Your task to perform on an android device: turn off sleep mode Image 0: 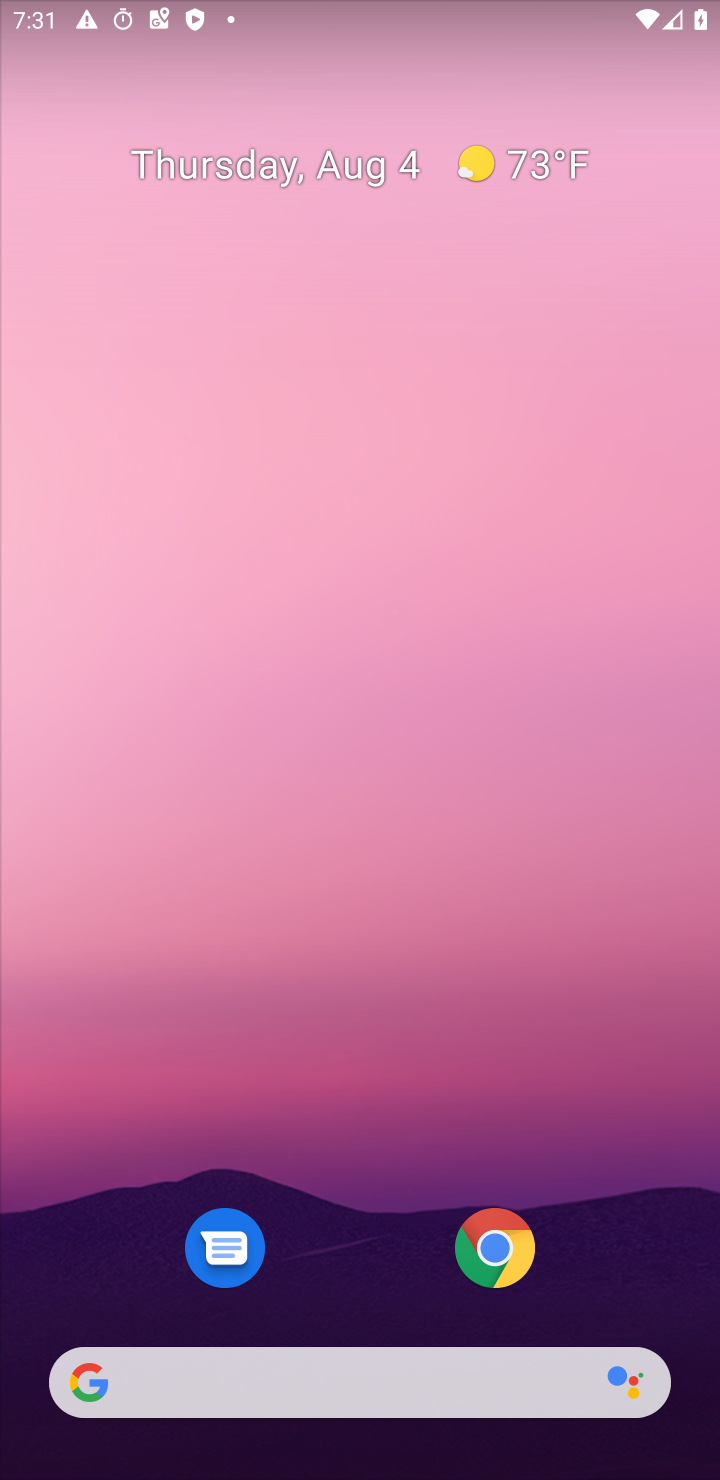
Step 0: press home button
Your task to perform on an android device: turn off sleep mode Image 1: 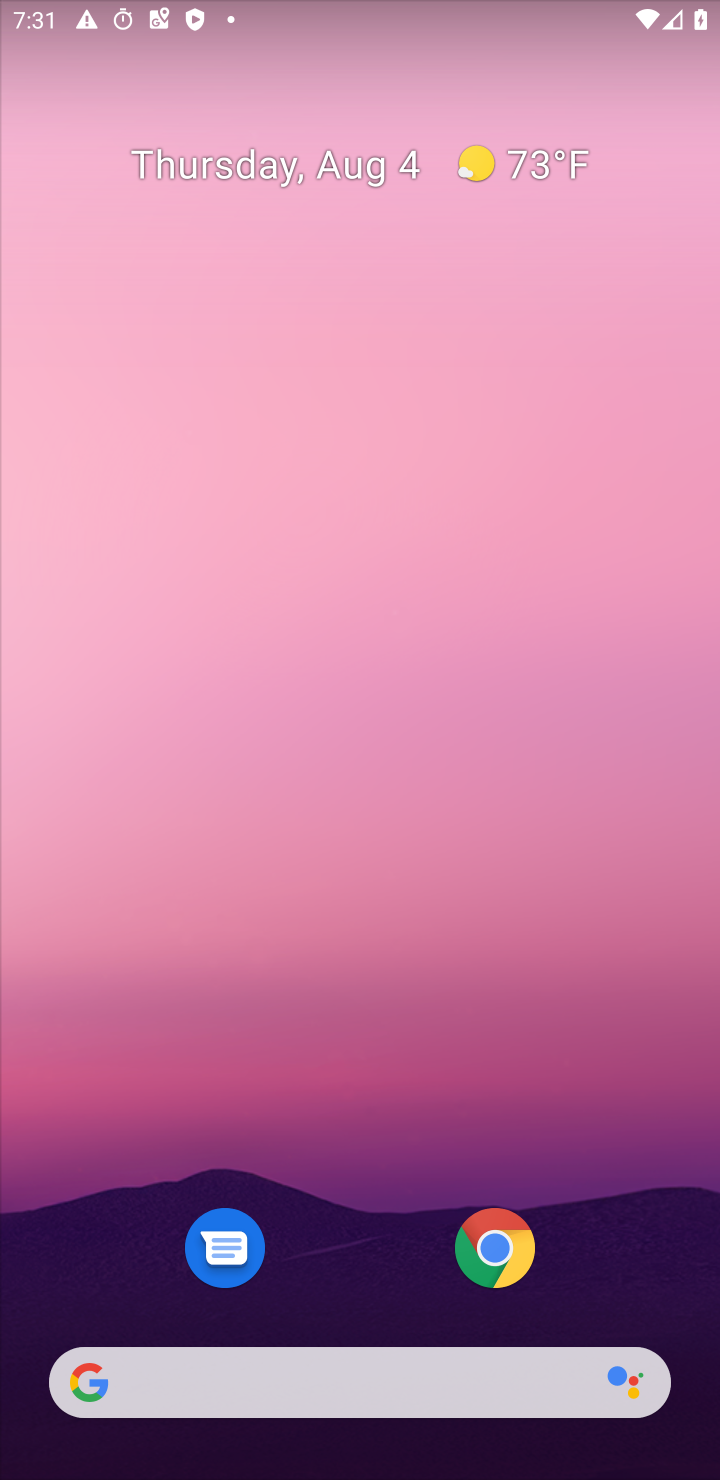
Step 1: drag from (427, 1415) to (389, 262)
Your task to perform on an android device: turn off sleep mode Image 2: 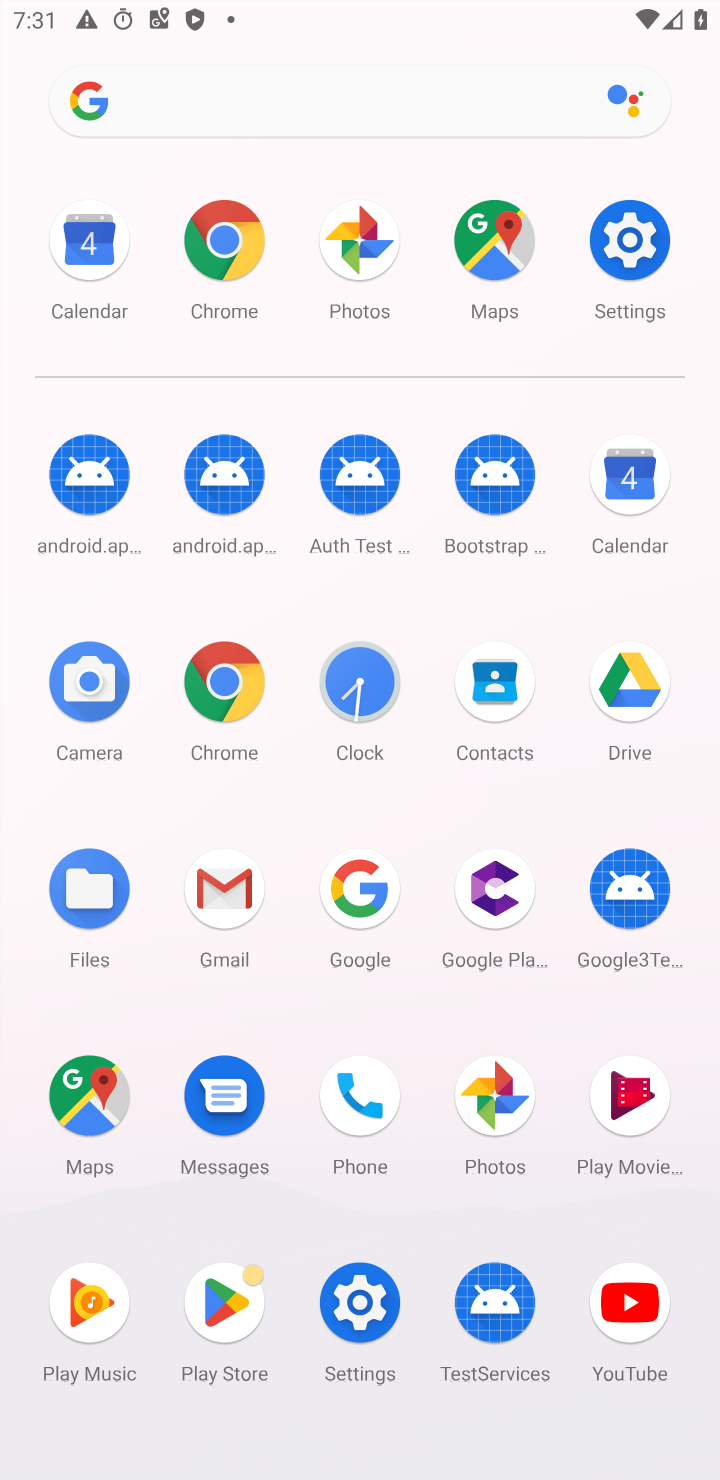
Step 2: click (367, 1276)
Your task to perform on an android device: turn off sleep mode Image 3: 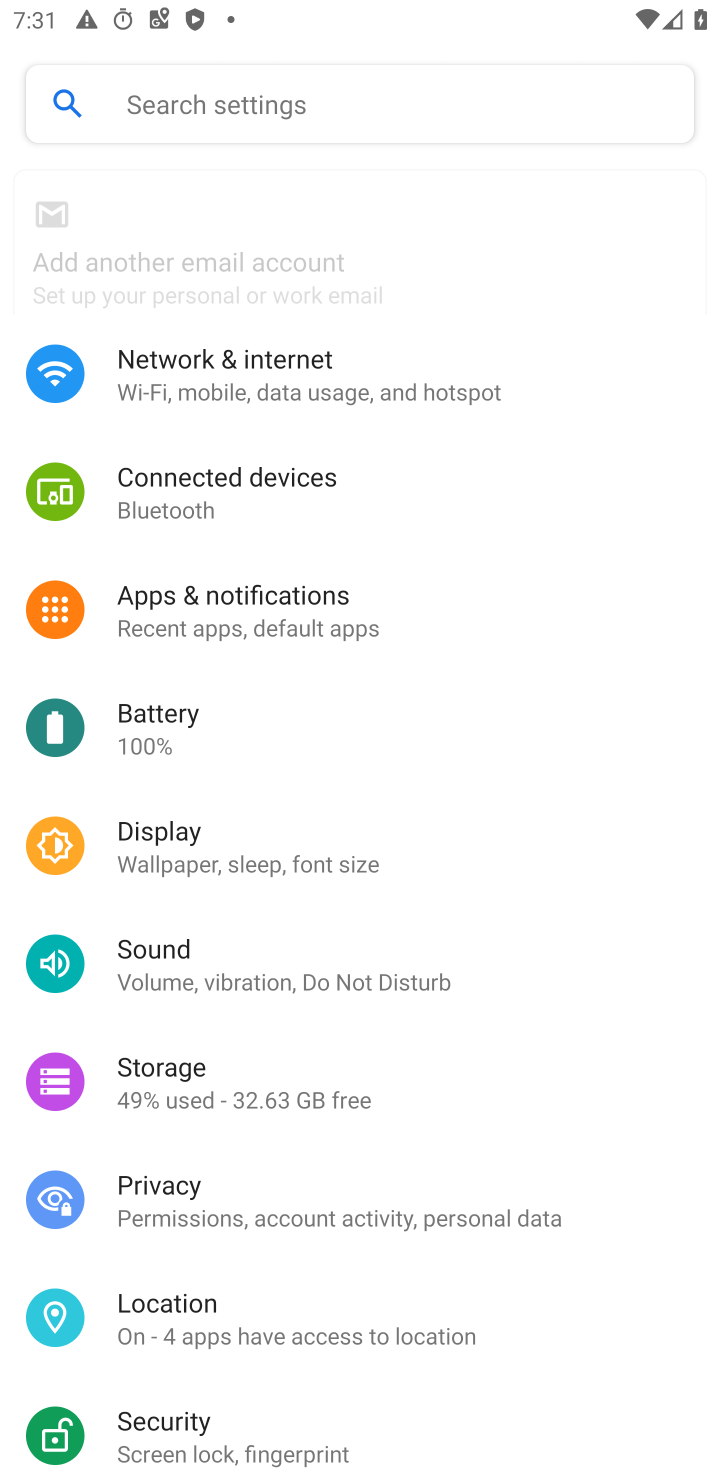
Step 3: click (238, 107)
Your task to perform on an android device: turn off sleep mode Image 4: 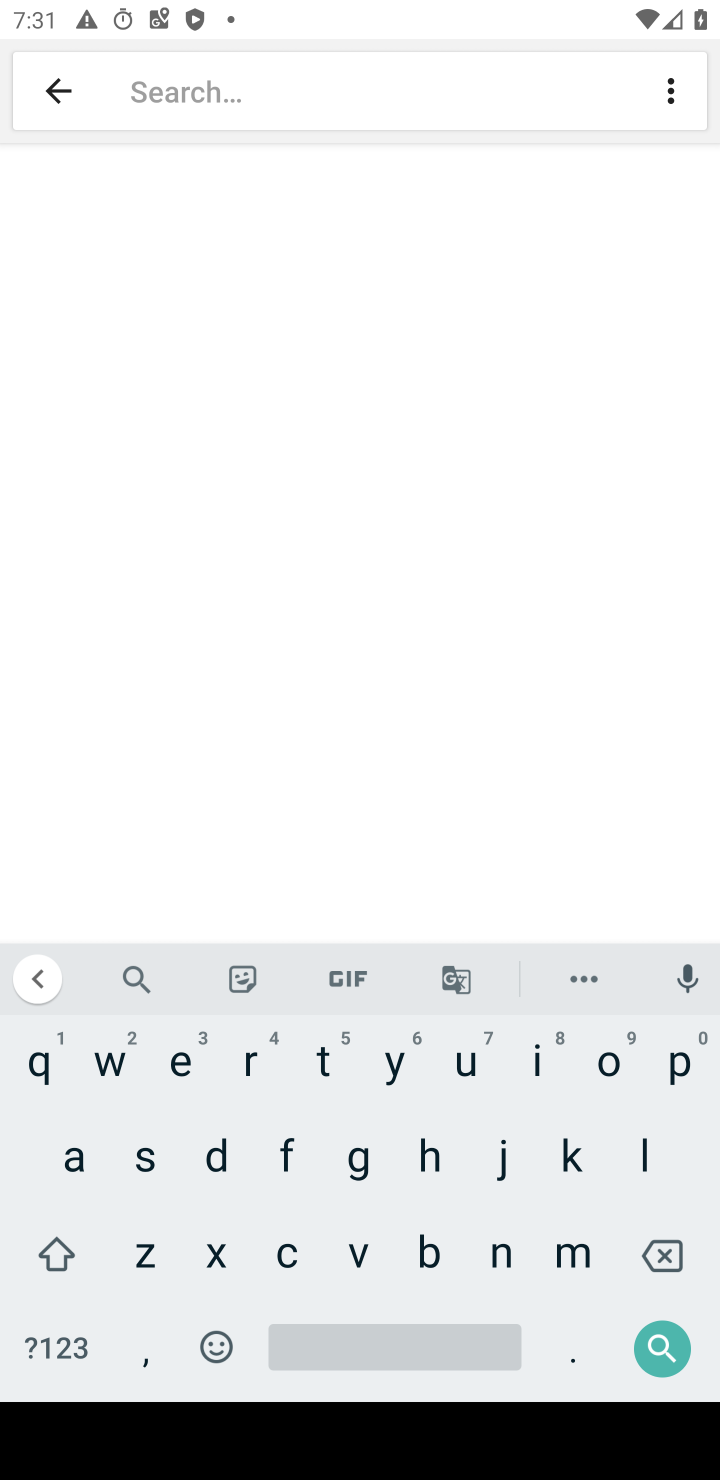
Step 4: click (136, 1159)
Your task to perform on an android device: turn off sleep mode Image 5: 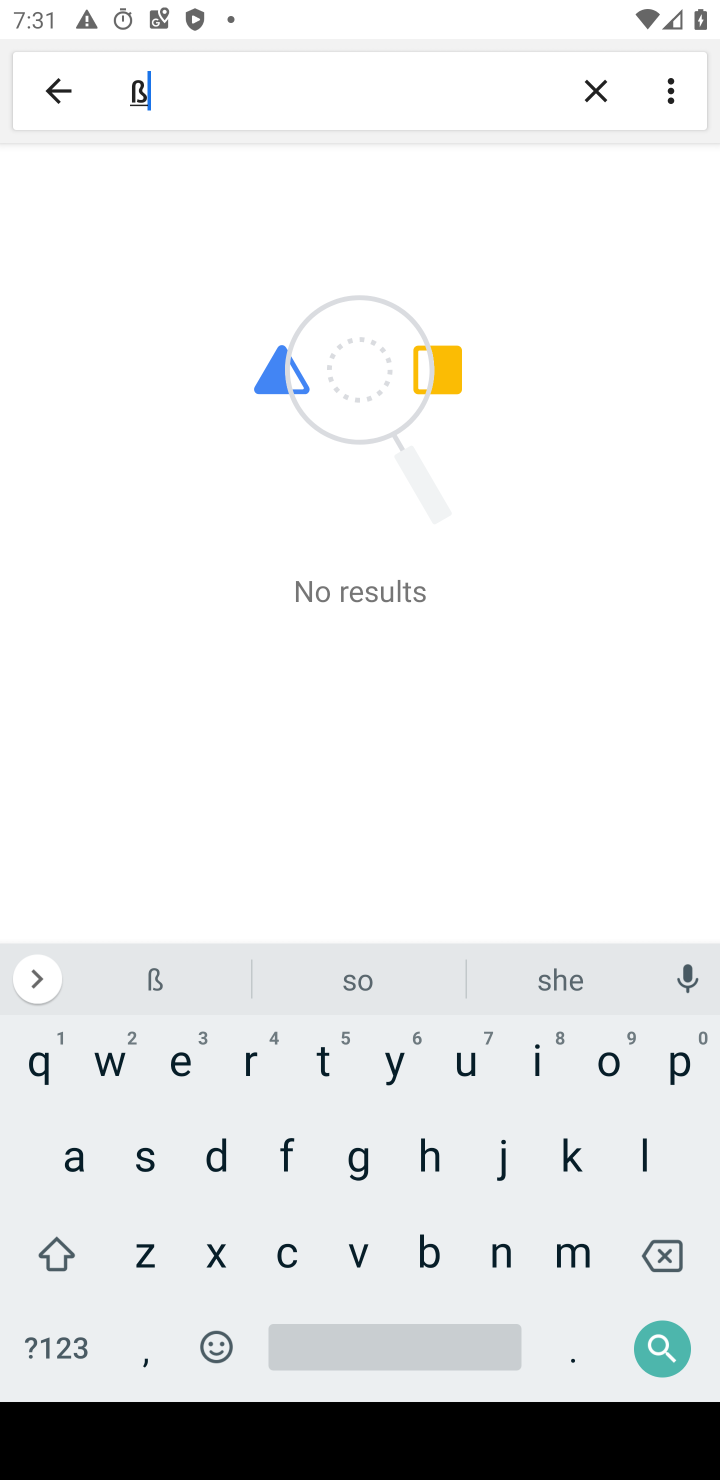
Step 5: click (610, 101)
Your task to perform on an android device: turn off sleep mode Image 6: 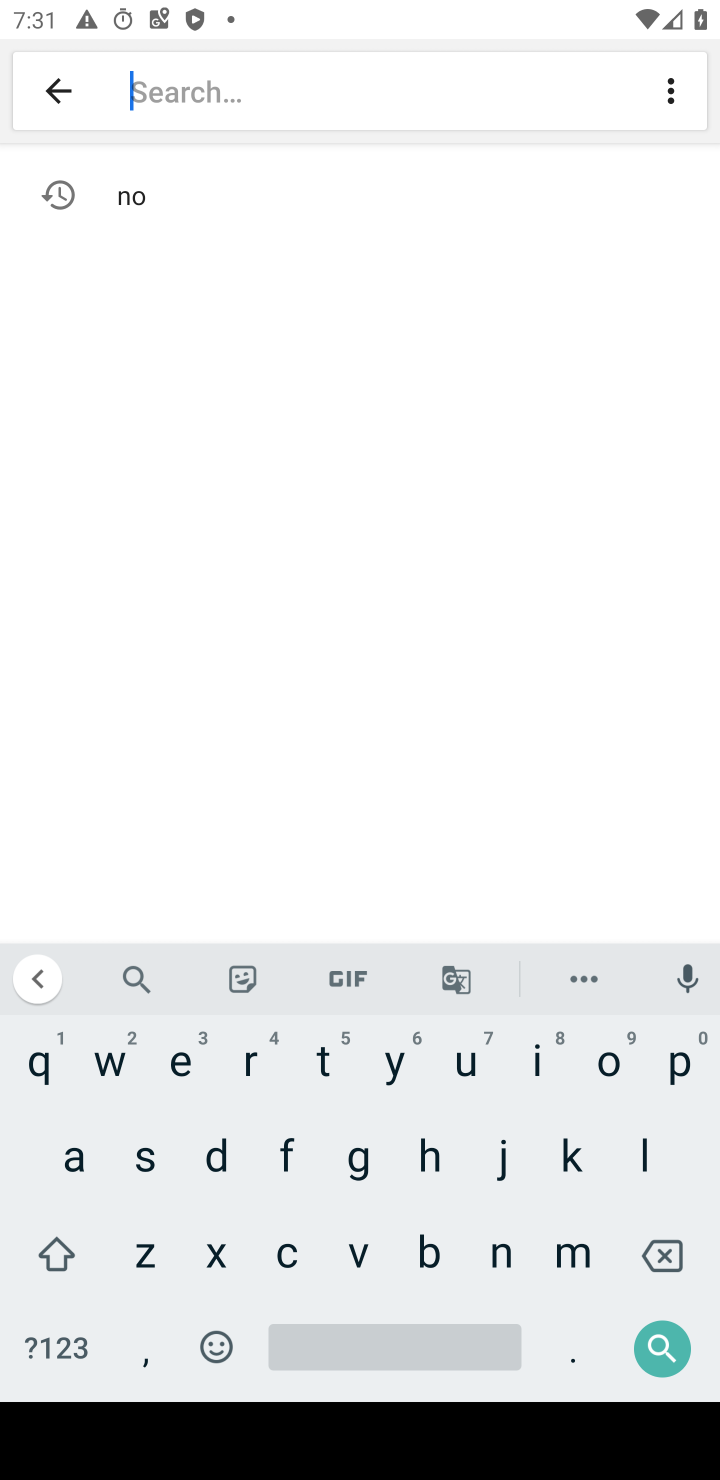
Step 6: click (148, 1145)
Your task to perform on an android device: turn off sleep mode Image 7: 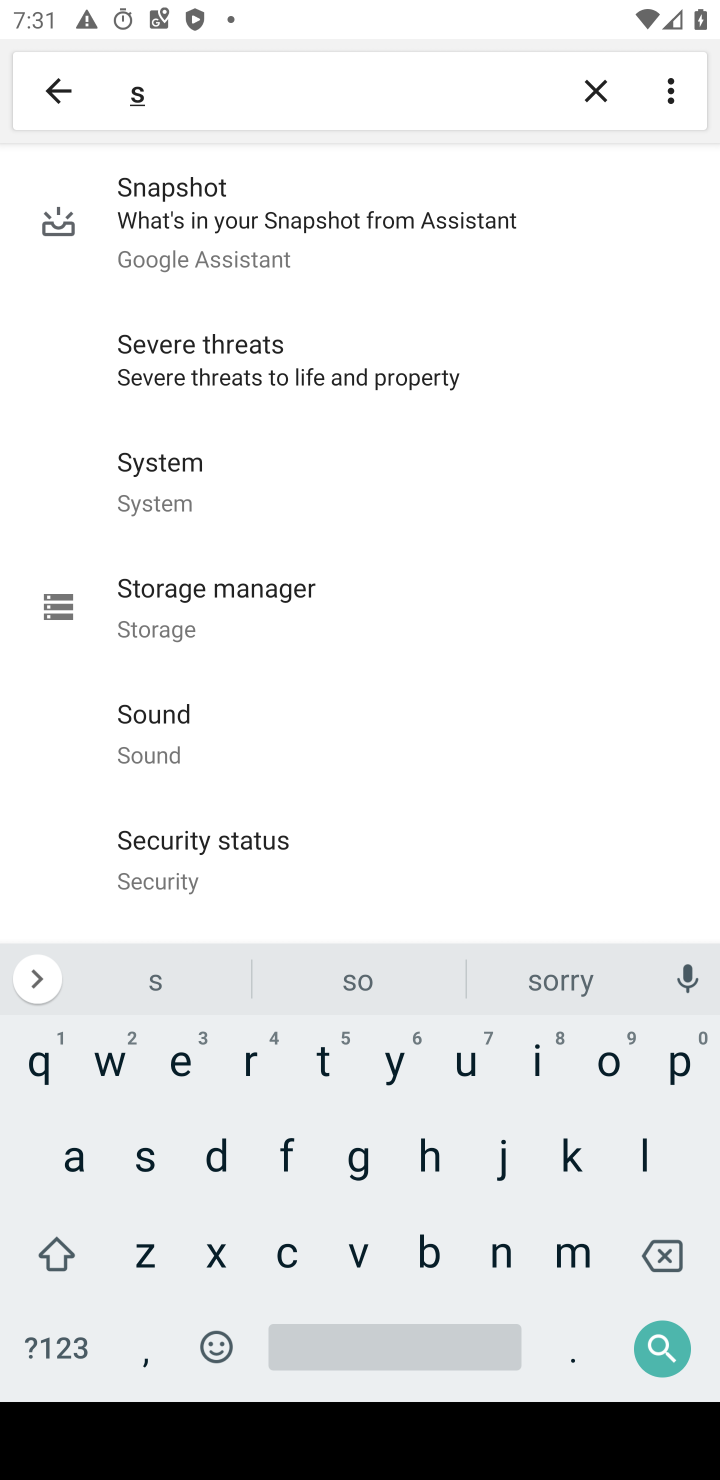
Step 7: click (648, 1143)
Your task to perform on an android device: turn off sleep mode Image 8: 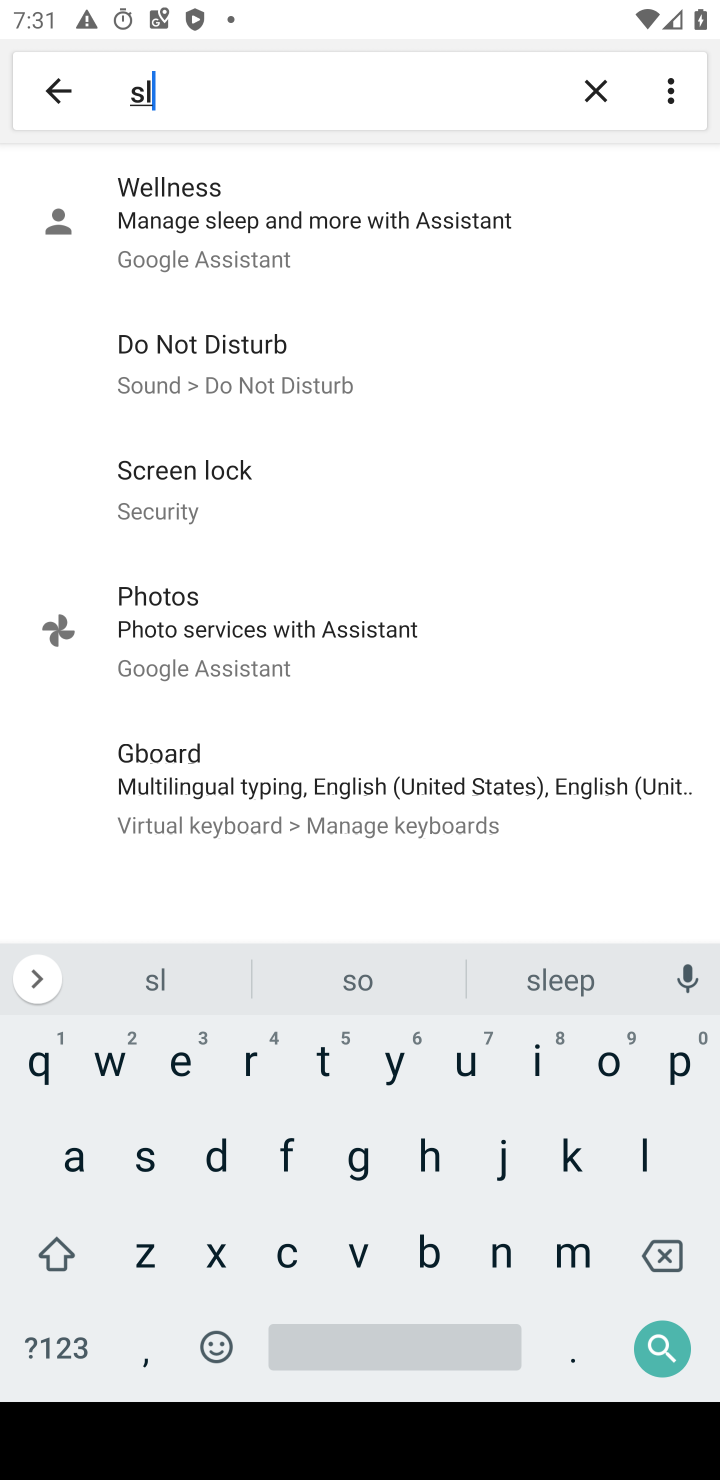
Step 8: click (227, 332)
Your task to perform on an android device: turn off sleep mode Image 9: 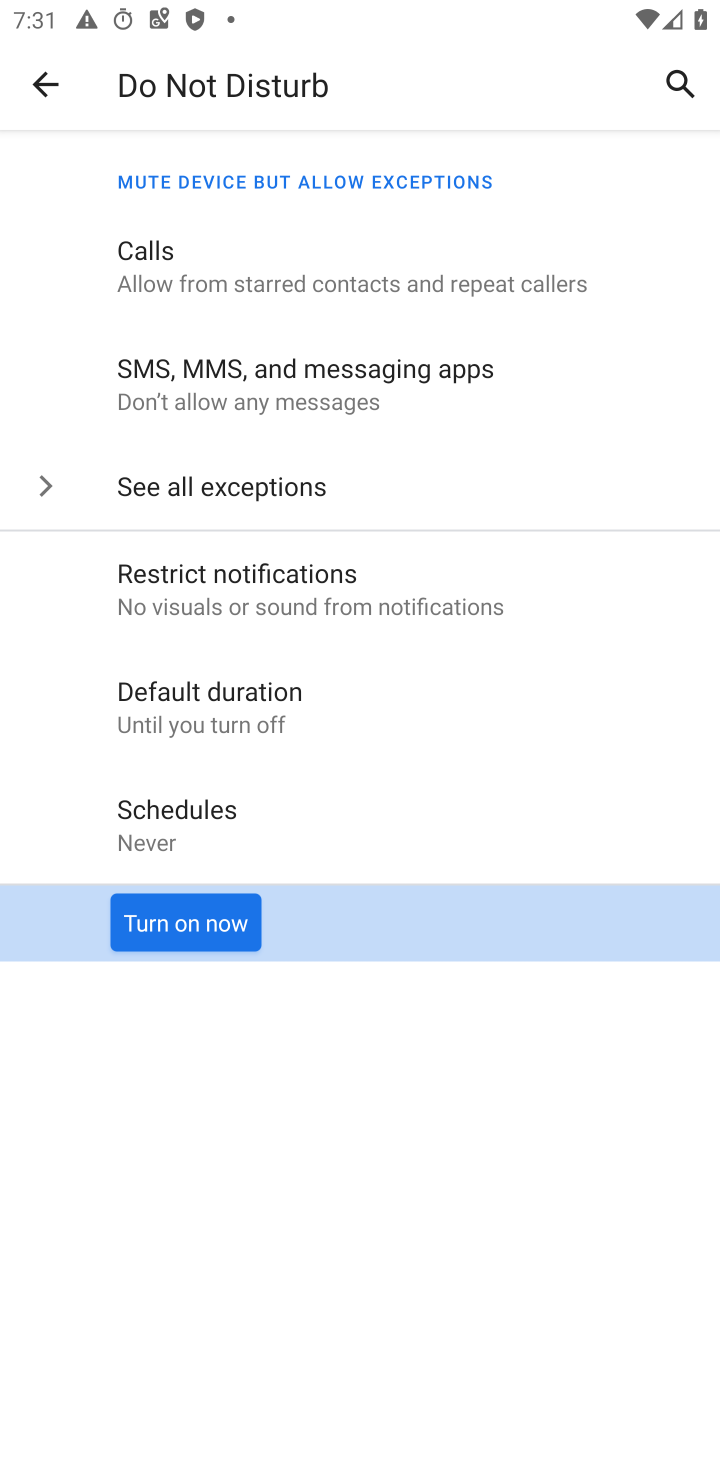
Step 9: click (171, 943)
Your task to perform on an android device: turn off sleep mode Image 10: 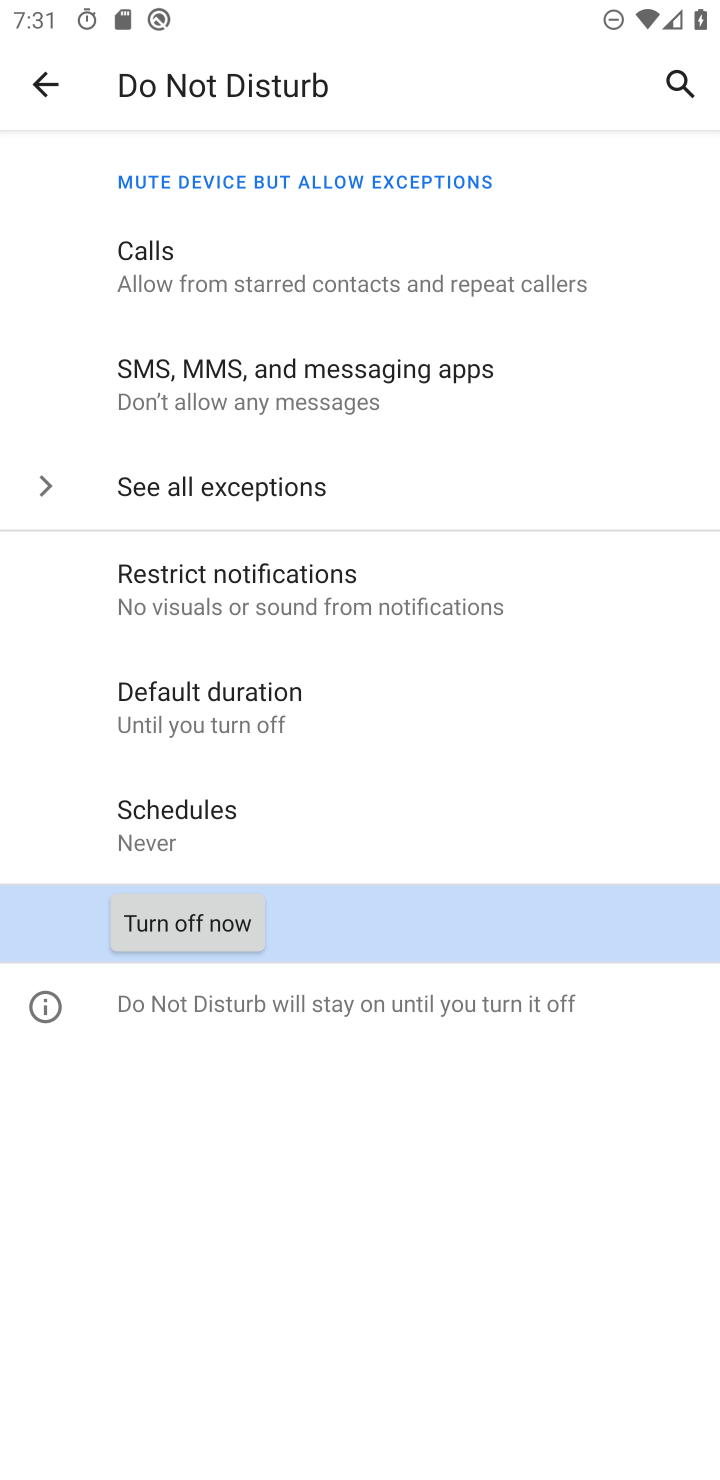
Step 10: click (171, 943)
Your task to perform on an android device: turn off sleep mode Image 11: 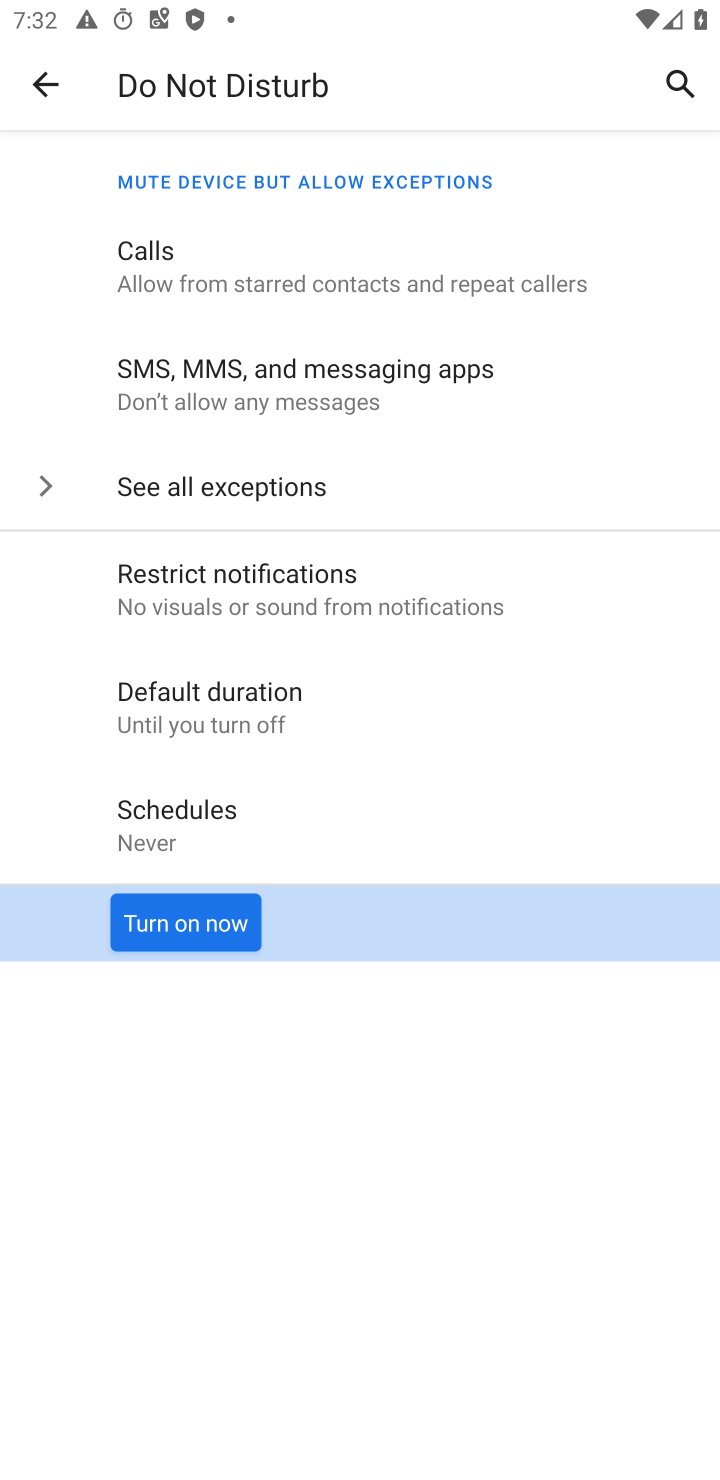
Step 11: task complete